Your task to perform on an android device: allow notifications from all sites in the chrome app Image 0: 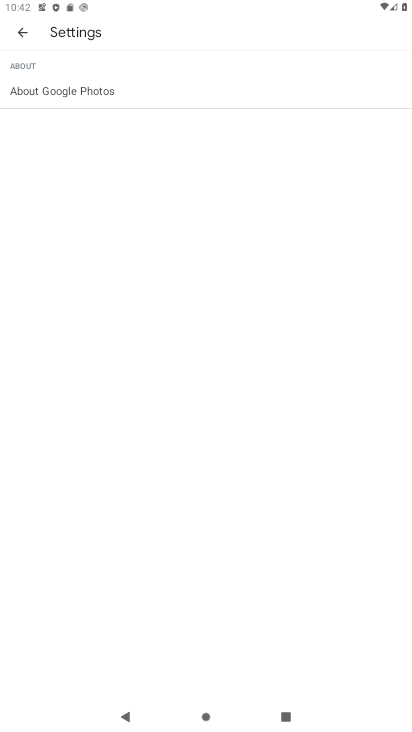
Step 0: press home button
Your task to perform on an android device: allow notifications from all sites in the chrome app Image 1: 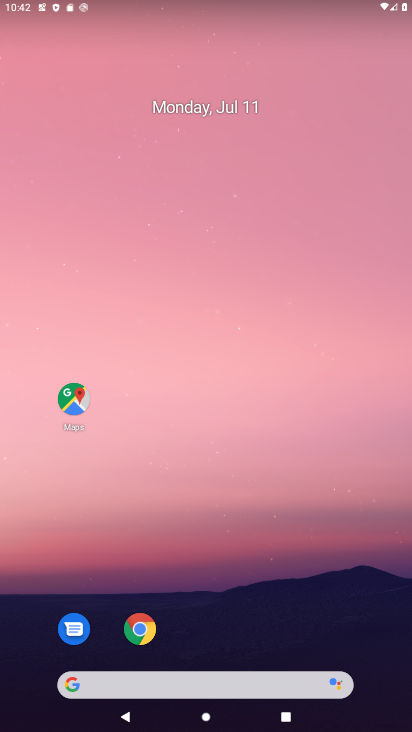
Step 1: drag from (218, 634) to (164, 259)
Your task to perform on an android device: allow notifications from all sites in the chrome app Image 2: 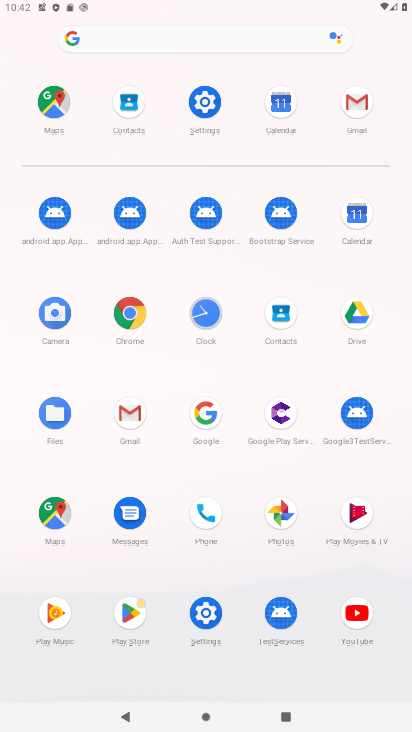
Step 2: click (130, 322)
Your task to perform on an android device: allow notifications from all sites in the chrome app Image 3: 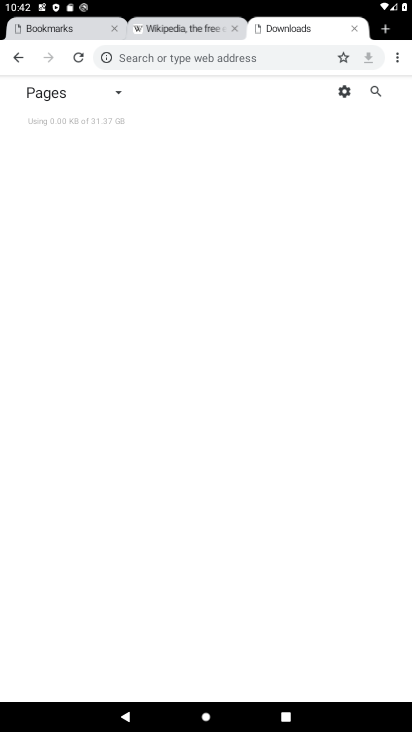
Step 3: click (403, 57)
Your task to perform on an android device: allow notifications from all sites in the chrome app Image 4: 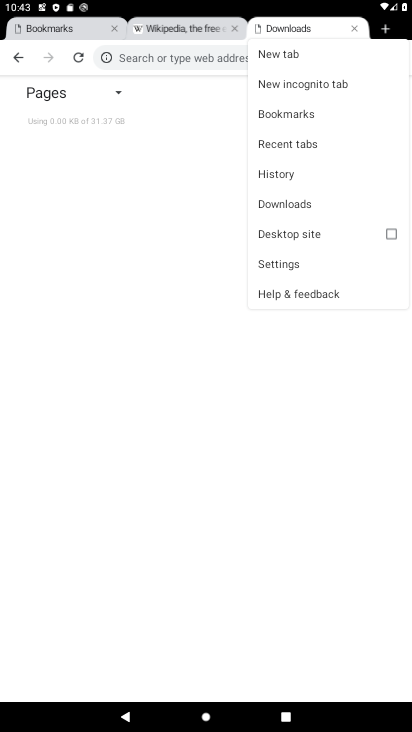
Step 4: click (311, 266)
Your task to perform on an android device: allow notifications from all sites in the chrome app Image 5: 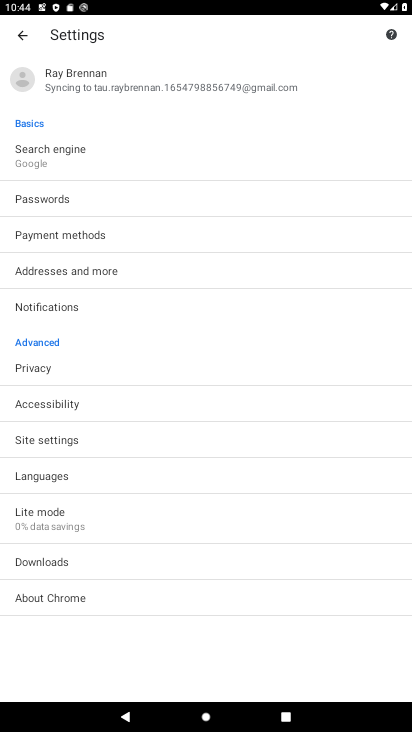
Step 5: click (90, 435)
Your task to perform on an android device: allow notifications from all sites in the chrome app Image 6: 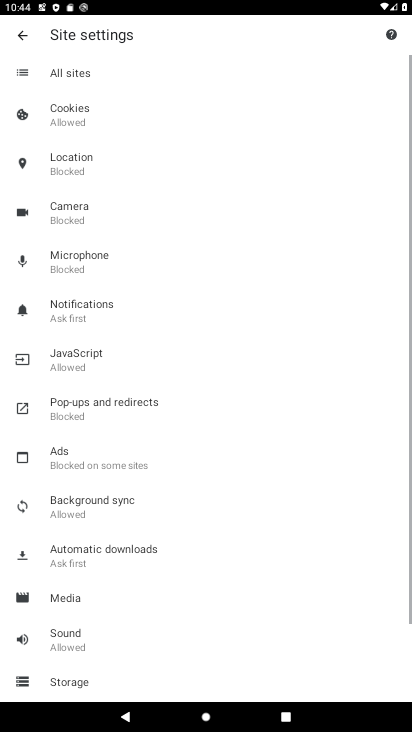
Step 6: click (113, 71)
Your task to perform on an android device: allow notifications from all sites in the chrome app Image 7: 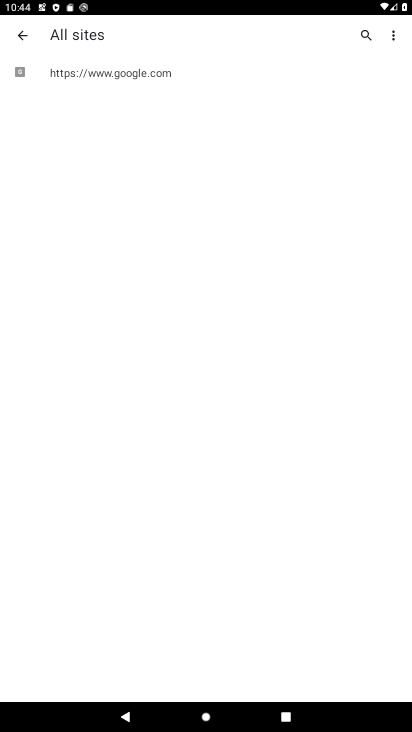
Step 7: click (157, 79)
Your task to perform on an android device: allow notifications from all sites in the chrome app Image 8: 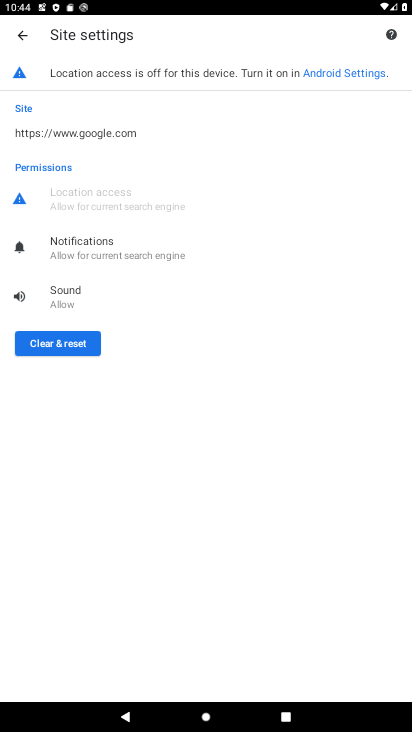
Step 8: click (124, 251)
Your task to perform on an android device: allow notifications from all sites in the chrome app Image 9: 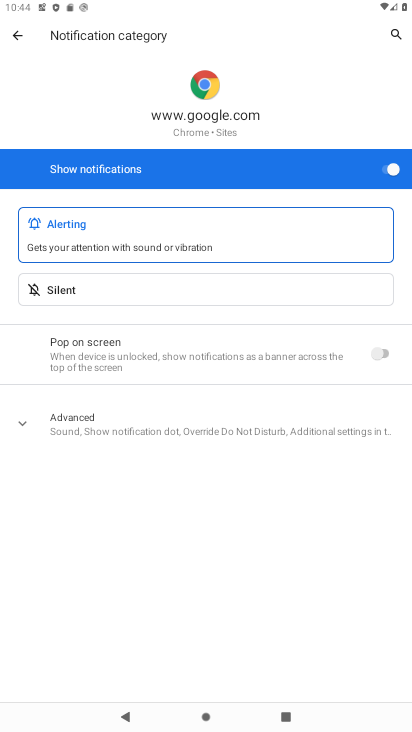
Step 9: task complete